Your task to perform on an android device: Add dell alienware to the cart on ebay, then select checkout. Image 0: 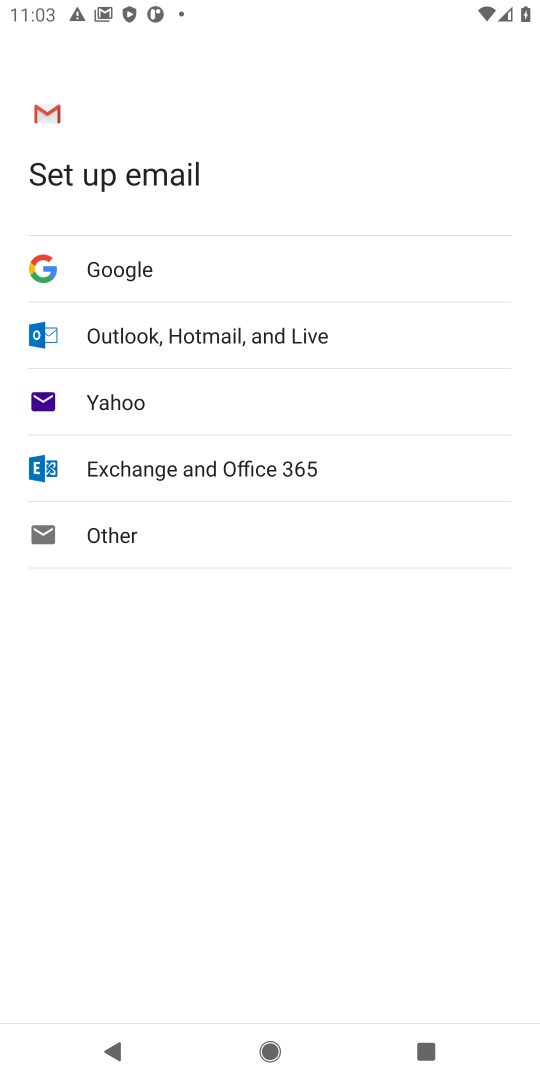
Step 0: press home button
Your task to perform on an android device: Add dell alienware to the cart on ebay, then select checkout. Image 1: 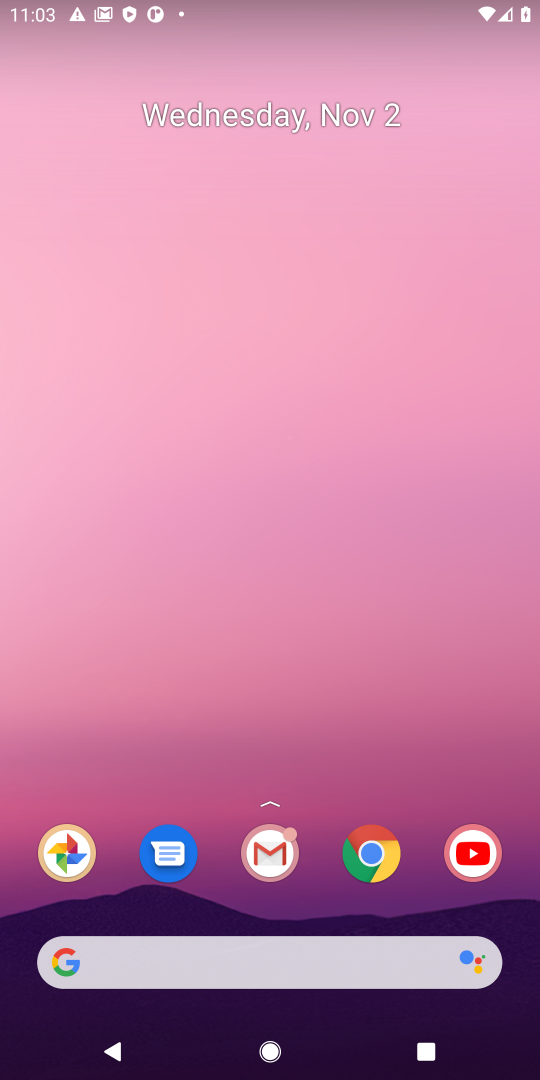
Step 1: click (379, 861)
Your task to perform on an android device: Add dell alienware to the cart on ebay, then select checkout. Image 2: 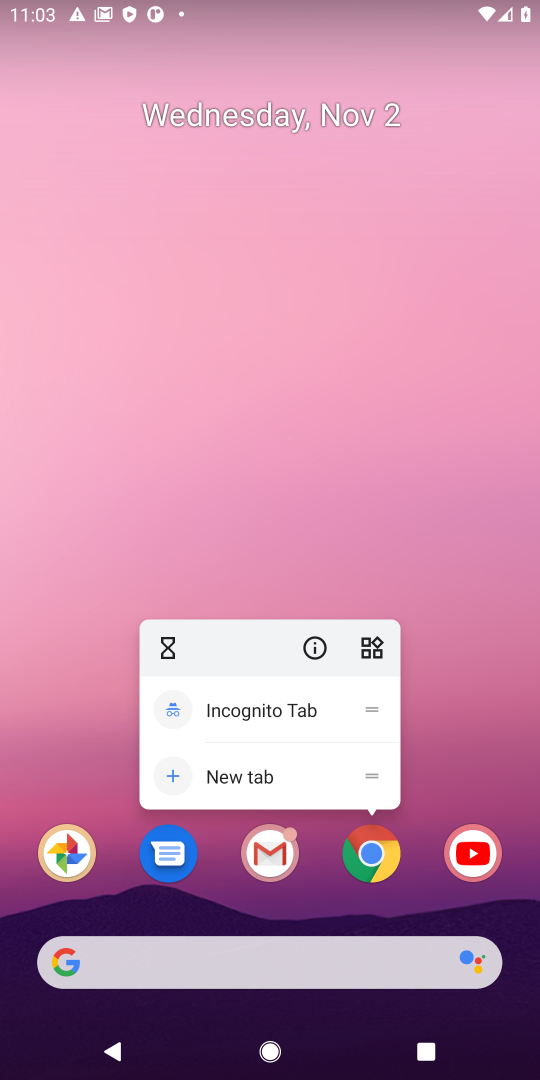
Step 2: click (374, 850)
Your task to perform on an android device: Add dell alienware to the cart on ebay, then select checkout. Image 3: 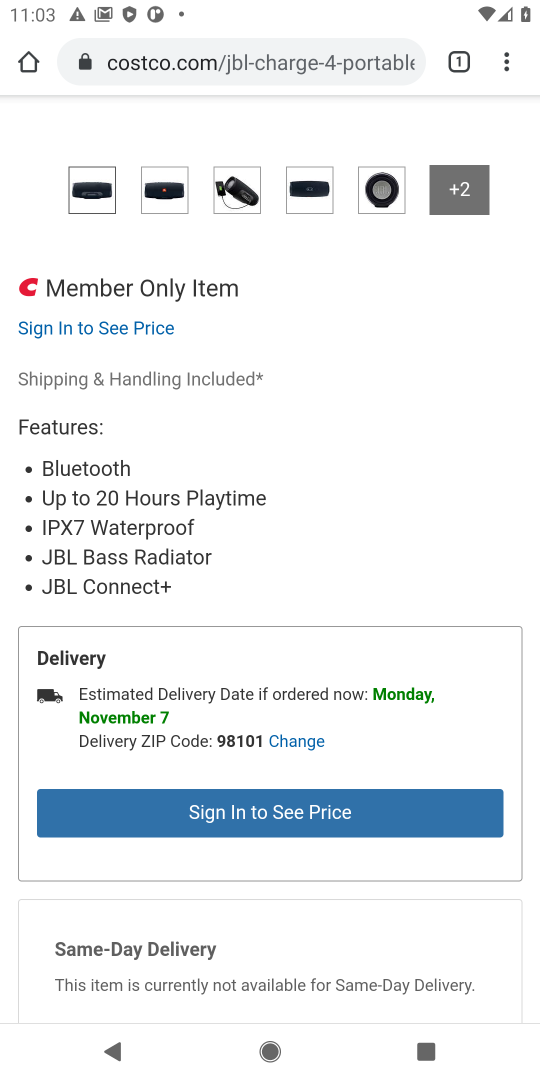
Step 3: click (325, 60)
Your task to perform on an android device: Add dell alienware to the cart on ebay, then select checkout. Image 4: 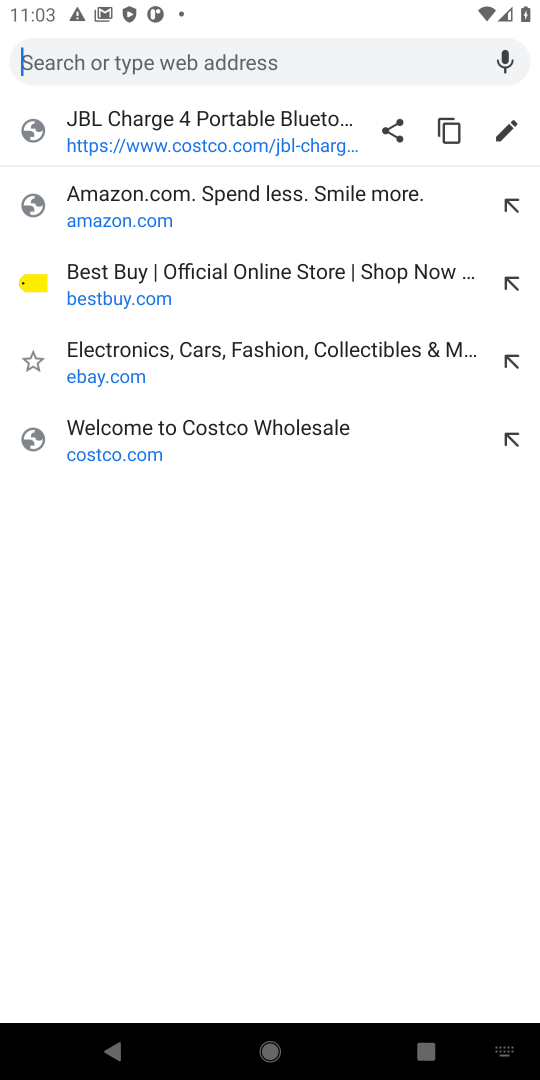
Step 4: click (111, 369)
Your task to perform on an android device: Add dell alienware to the cart on ebay, then select checkout. Image 5: 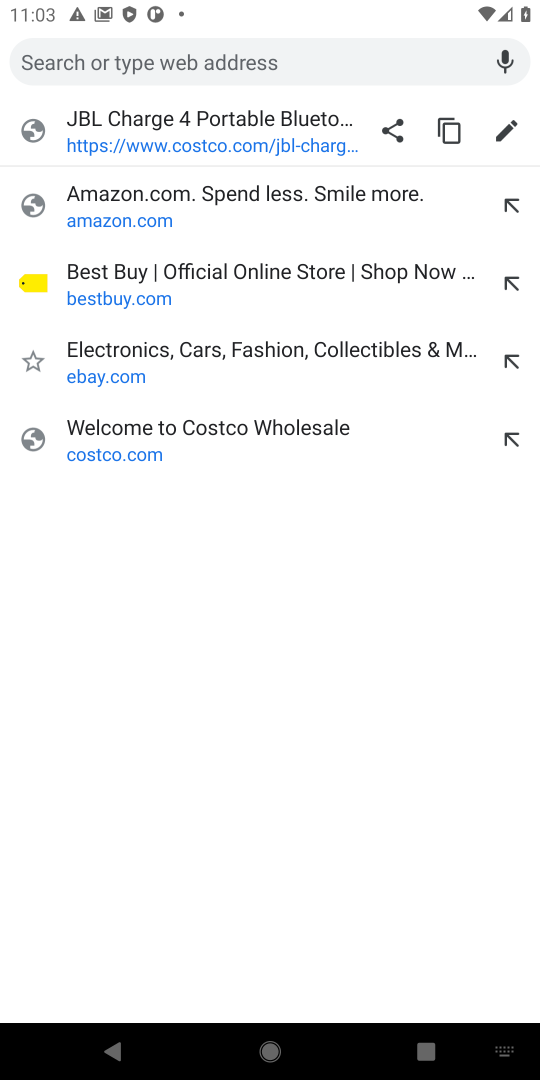
Step 5: click (107, 372)
Your task to perform on an android device: Add dell alienware to the cart on ebay, then select checkout. Image 6: 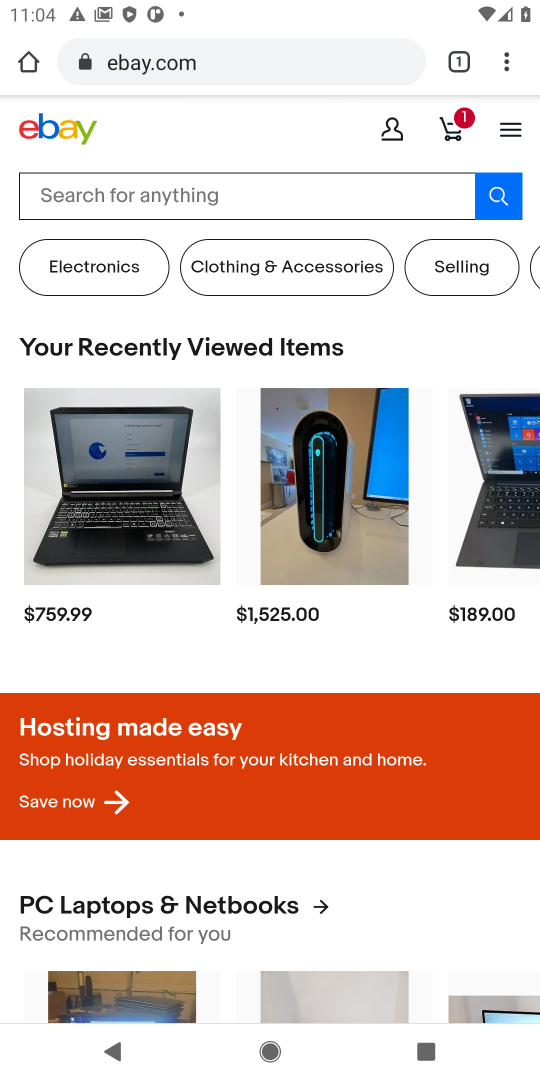
Step 6: click (133, 189)
Your task to perform on an android device: Add dell alienware to the cart on ebay, then select checkout. Image 7: 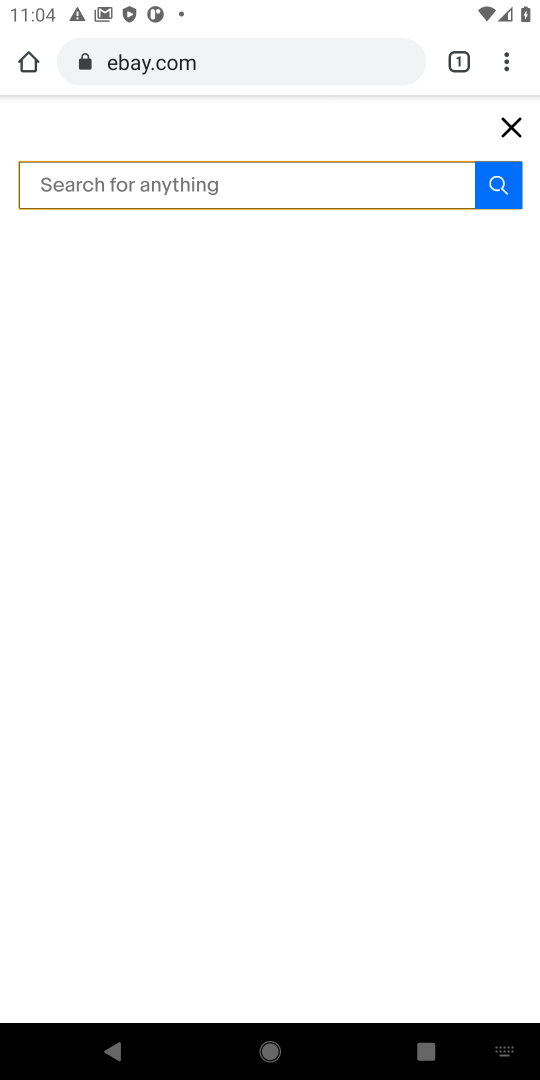
Step 7: type "dell alienware"
Your task to perform on an android device: Add dell alienware to the cart on ebay, then select checkout. Image 8: 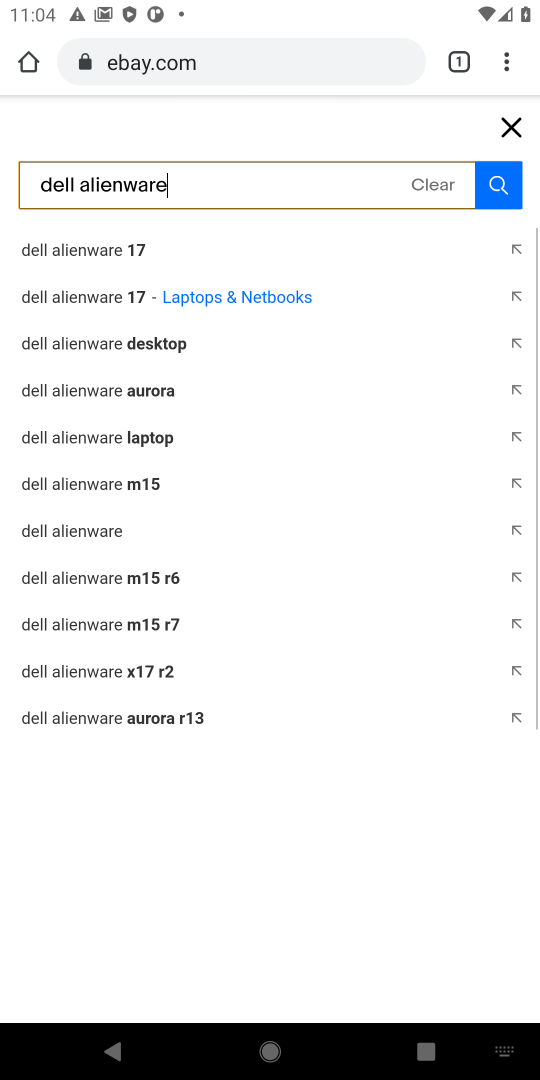
Step 8: press enter
Your task to perform on an android device: Add dell alienware to the cart on ebay, then select checkout. Image 9: 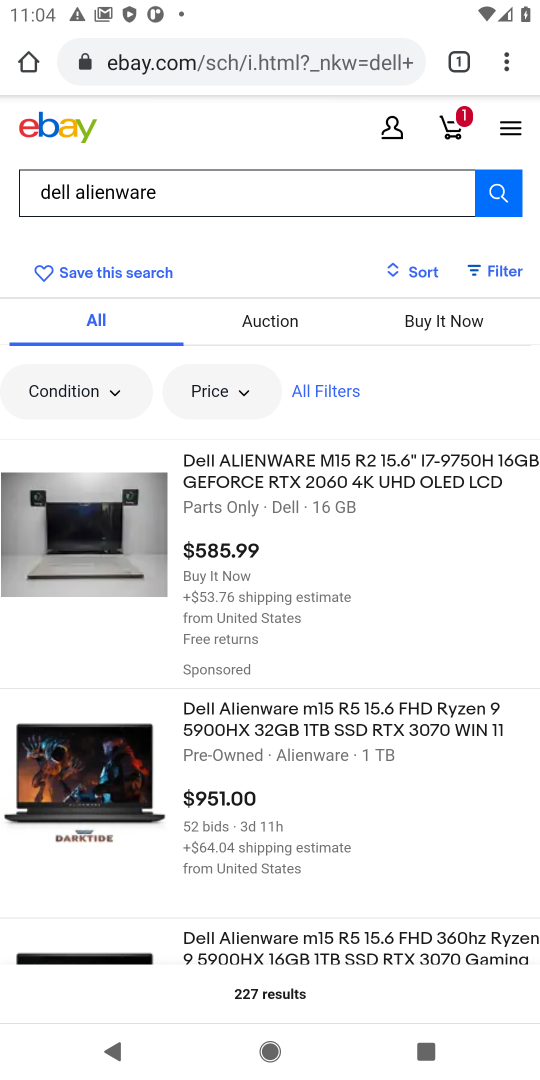
Step 9: click (251, 508)
Your task to perform on an android device: Add dell alienware to the cart on ebay, then select checkout. Image 10: 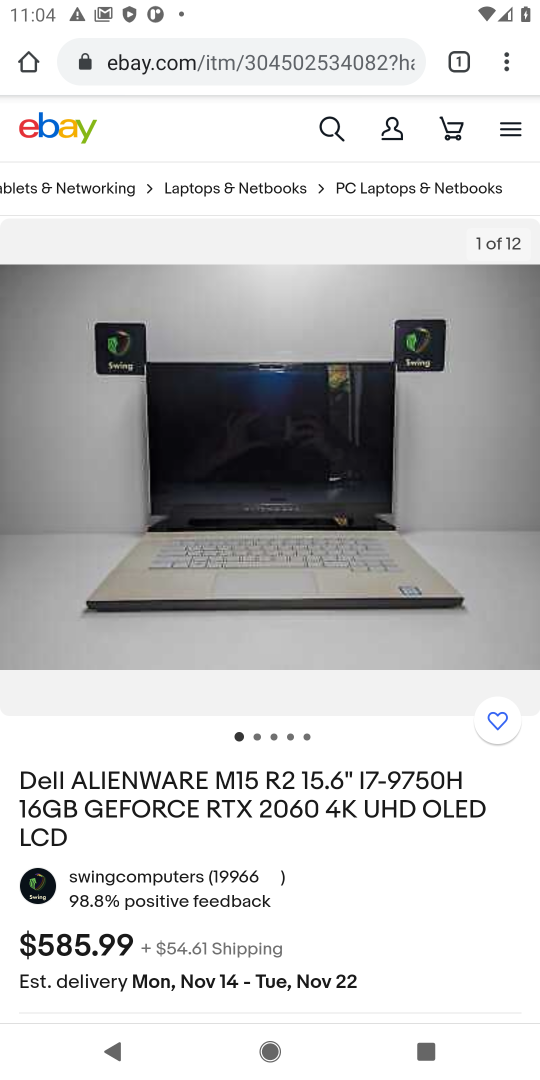
Step 10: drag from (249, 878) to (451, 219)
Your task to perform on an android device: Add dell alienware to the cart on ebay, then select checkout. Image 11: 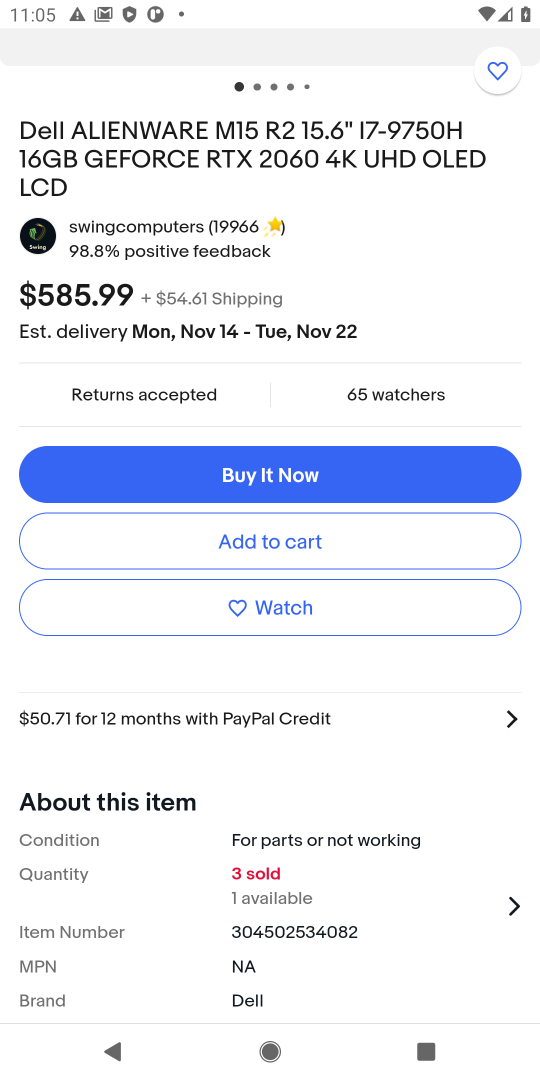
Step 11: click (298, 542)
Your task to perform on an android device: Add dell alienware to the cart on ebay, then select checkout. Image 12: 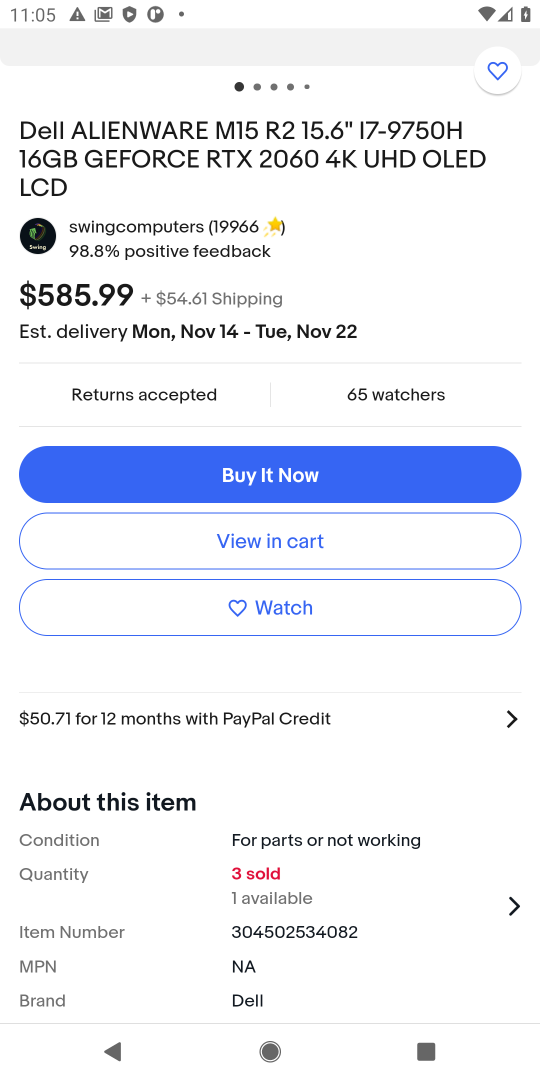
Step 12: click (298, 543)
Your task to perform on an android device: Add dell alienware to the cart on ebay, then select checkout. Image 13: 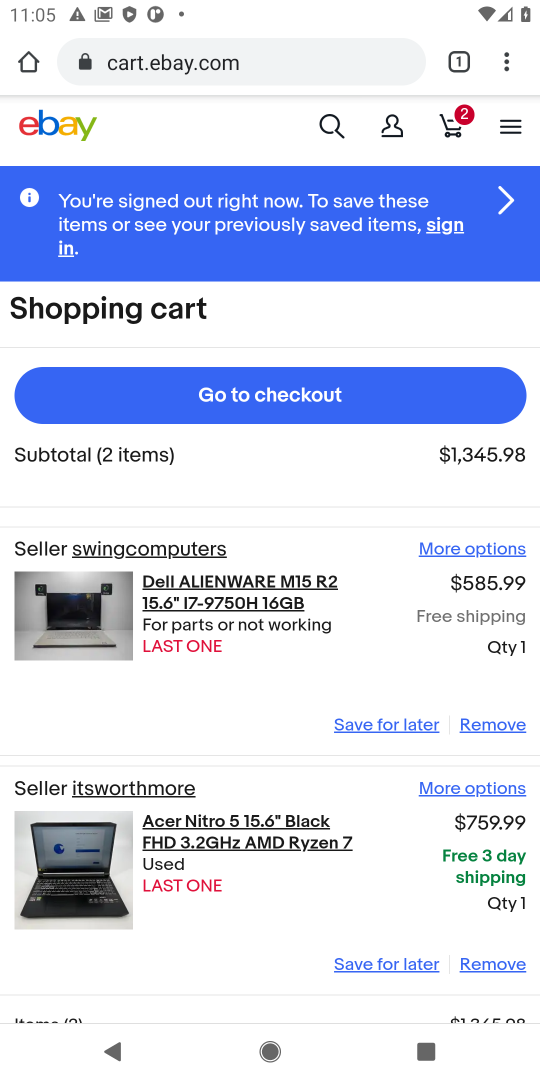
Step 13: click (506, 963)
Your task to perform on an android device: Add dell alienware to the cart on ebay, then select checkout. Image 14: 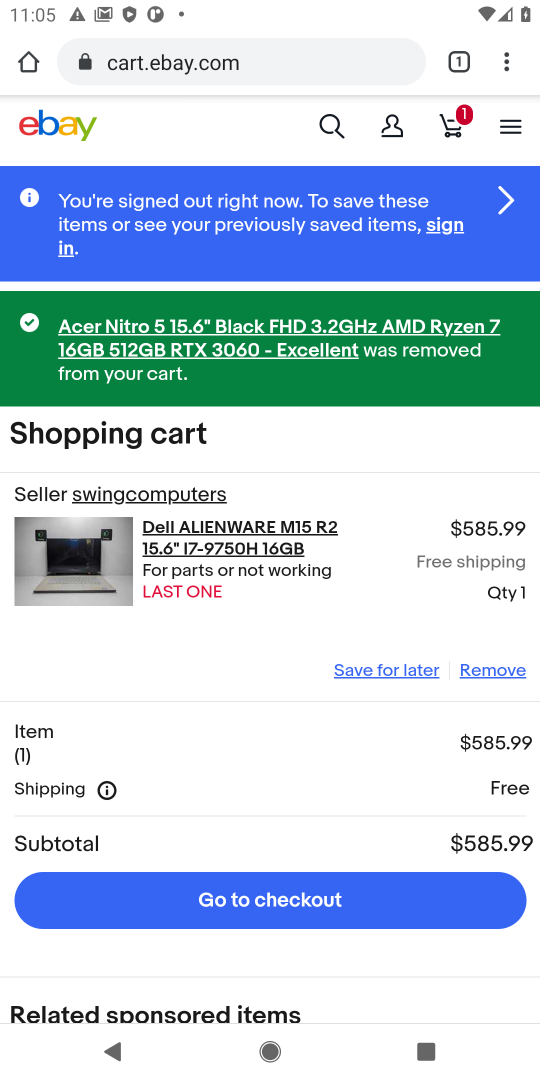
Step 14: click (246, 897)
Your task to perform on an android device: Add dell alienware to the cart on ebay, then select checkout. Image 15: 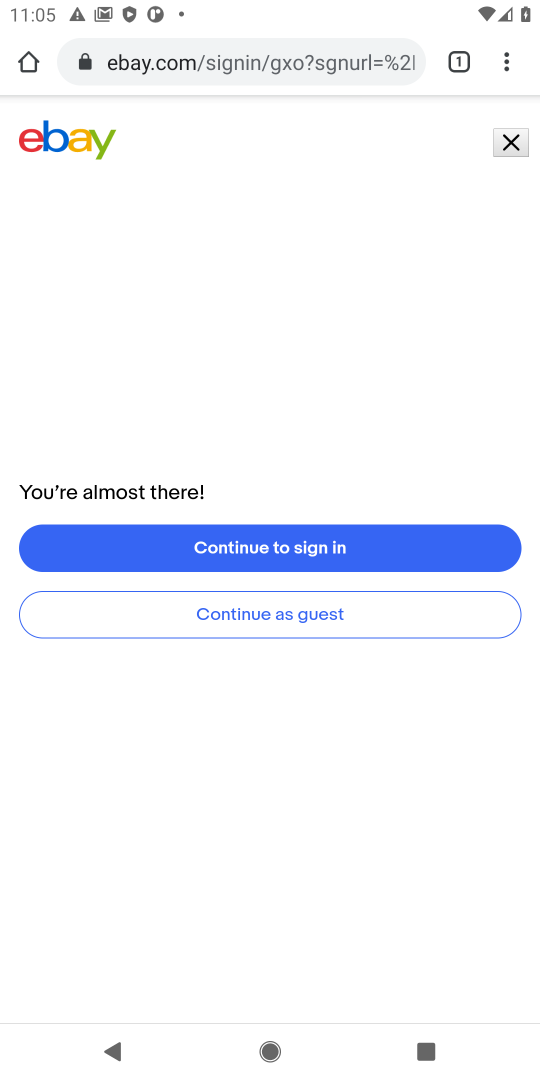
Step 15: task complete